Your task to perform on an android device: Go to notification settings Image 0: 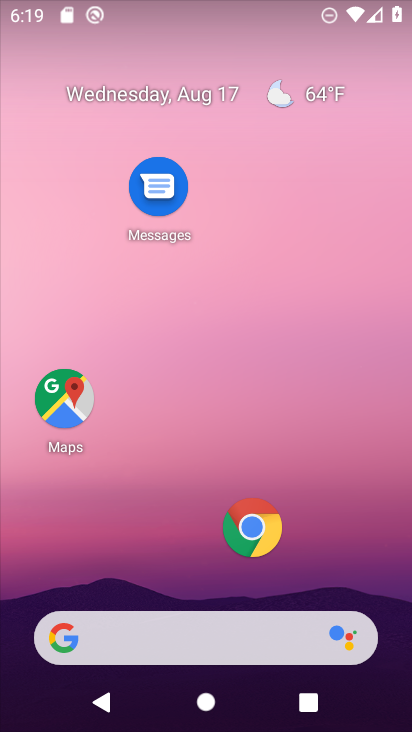
Step 0: drag from (145, 611) to (179, 206)
Your task to perform on an android device: Go to notification settings Image 1: 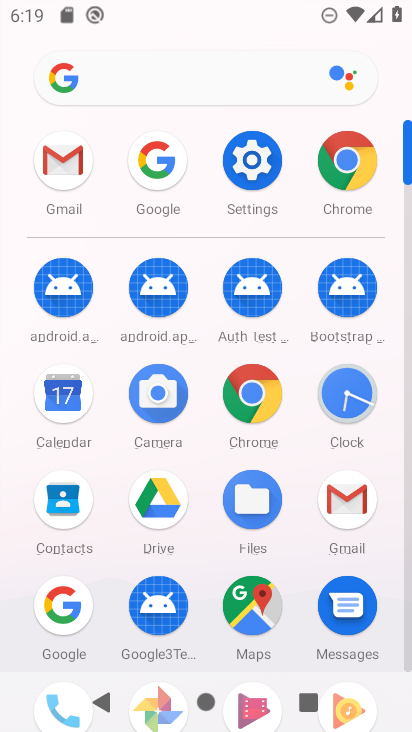
Step 1: click (249, 168)
Your task to perform on an android device: Go to notification settings Image 2: 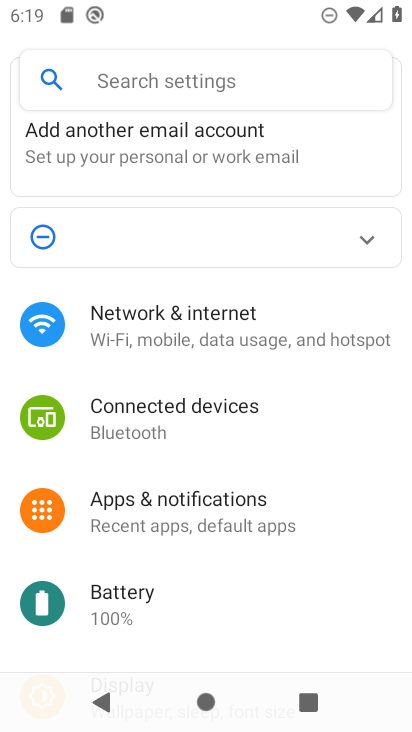
Step 2: click (203, 516)
Your task to perform on an android device: Go to notification settings Image 3: 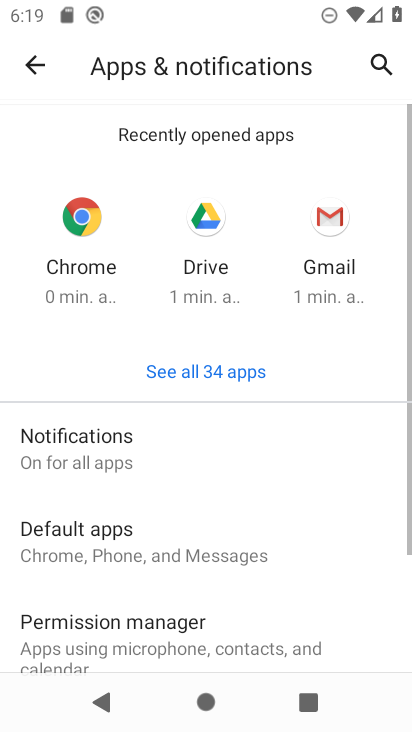
Step 3: drag from (91, 626) to (79, 256)
Your task to perform on an android device: Go to notification settings Image 4: 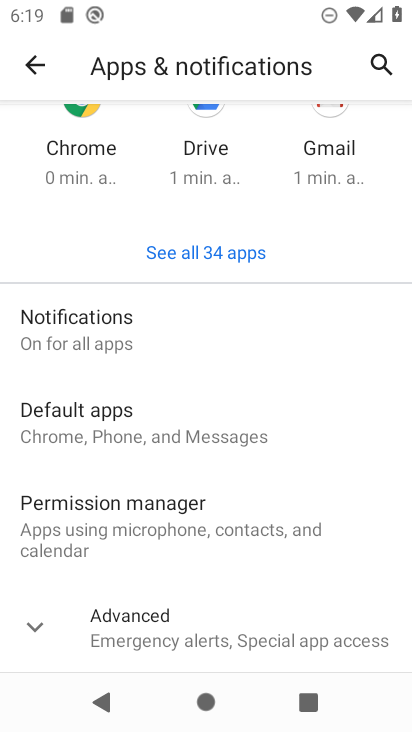
Step 4: click (70, 611)
Your task to perform on an android device: Go to notification settings Image 5: 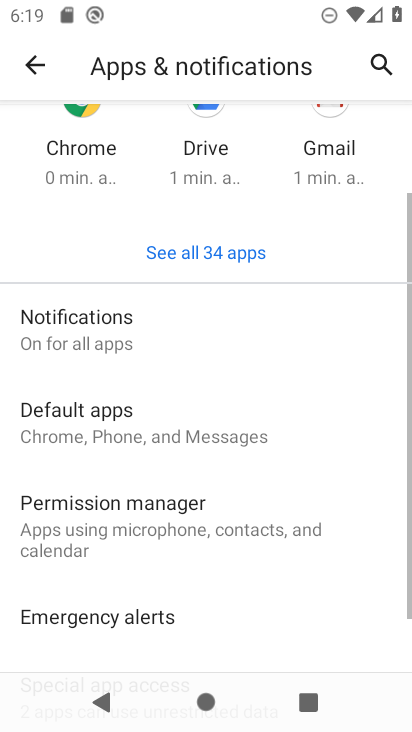
Step 5: task complete